Your task to perform on an android device: Go to CNN.com Image 0: 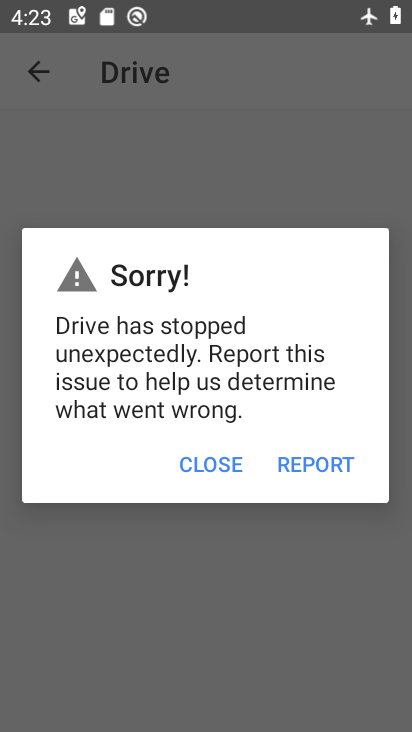
Step 0: press home button
Your task to perform on an android device: Go to CNN.com Image 1: 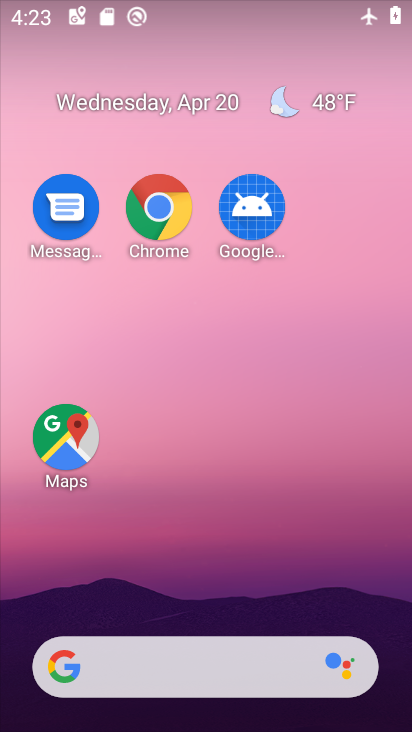
Step 1: click (270, 381)
Your task to perform on an android device: Go to CNN.com Image 2: 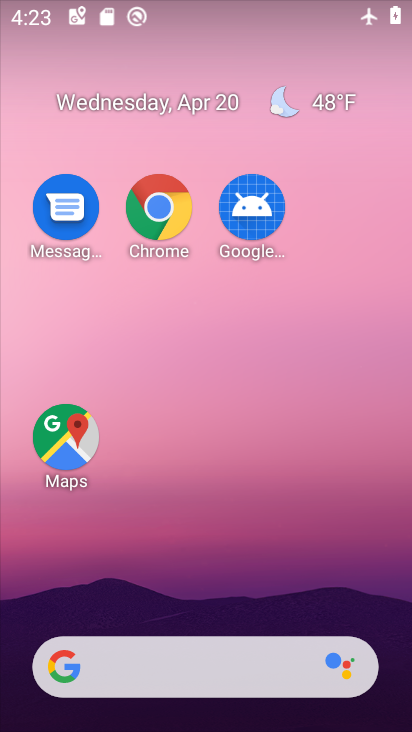
Step 2: click (165, 224)
Your task to perform on an android device: Go to CNN.com Image 3: 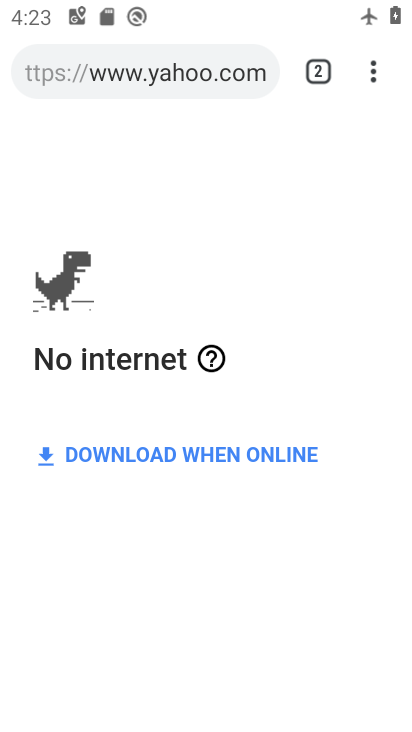
Step 3: task complete